Your task to perform on an android device: turn on sleep mode Image 0: 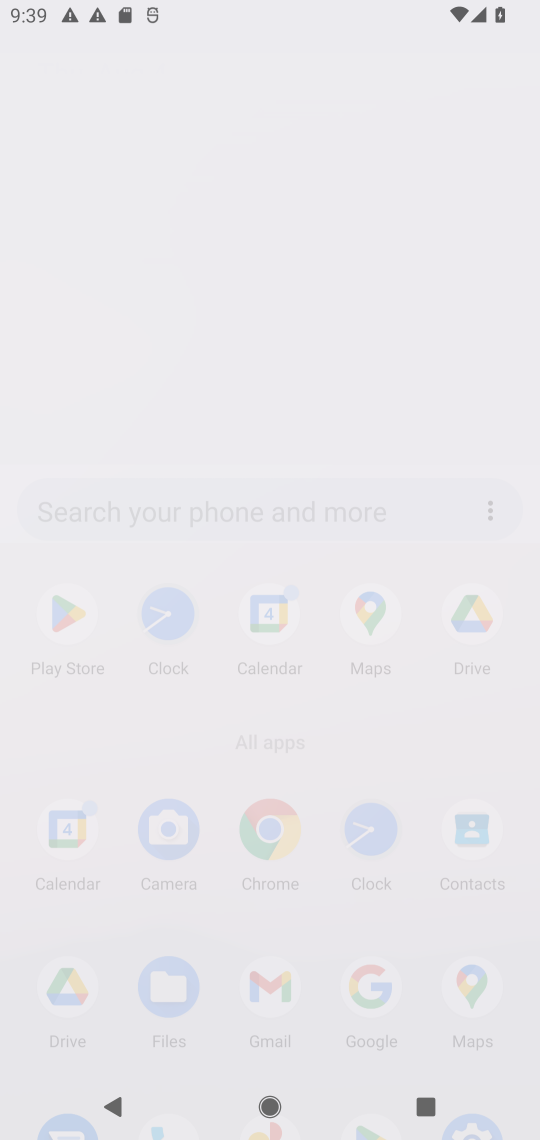
Step 0: press back button
Your task to perform on an android device: turn on sleep mode Image 1: 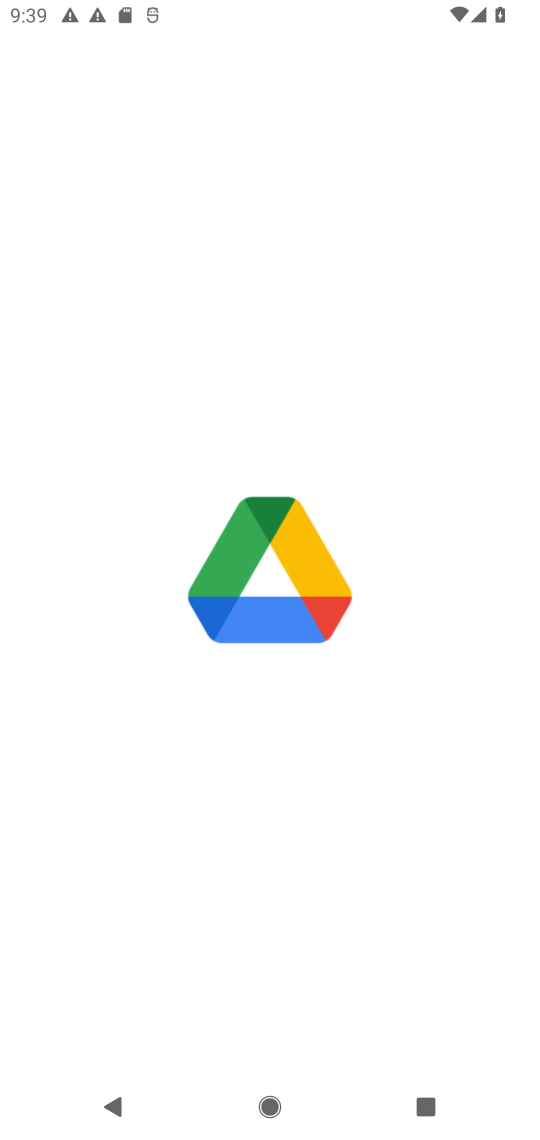
Step 1: press back button
Your task to perform on an android device: turn on sleep mode Image 2: 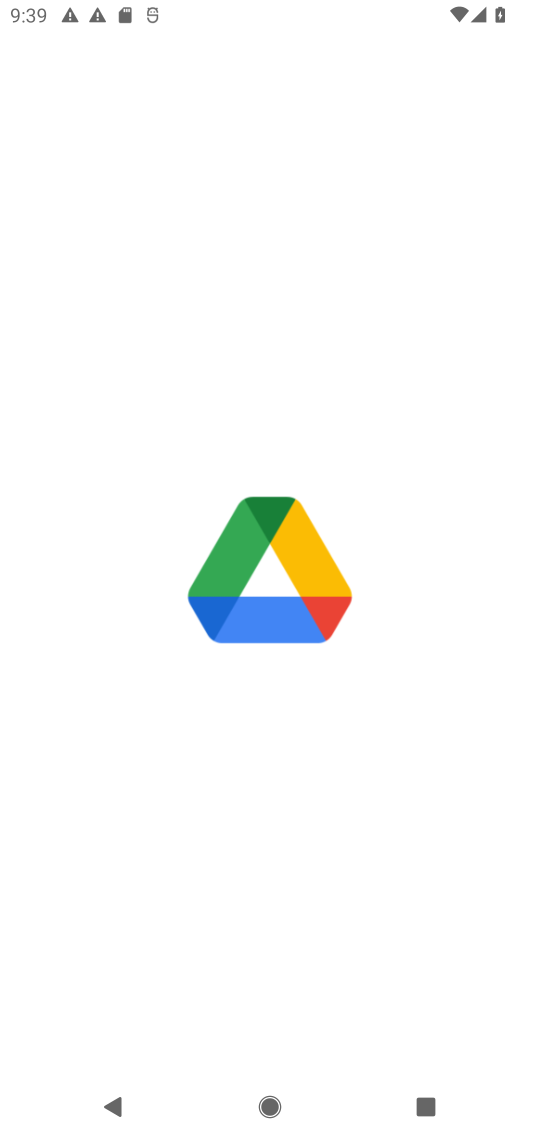
Step 2: press home button
Your task to perform on an android device: turn on sleep mode Image 3: 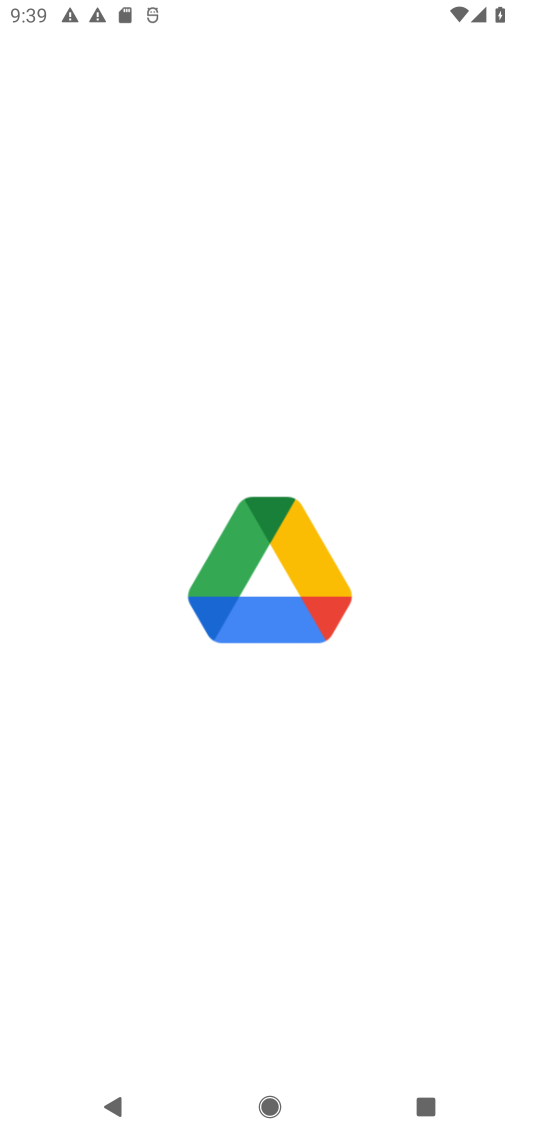
Step 3: press back button
Your task to perform on an android device: turn on sleep mode Image 4: 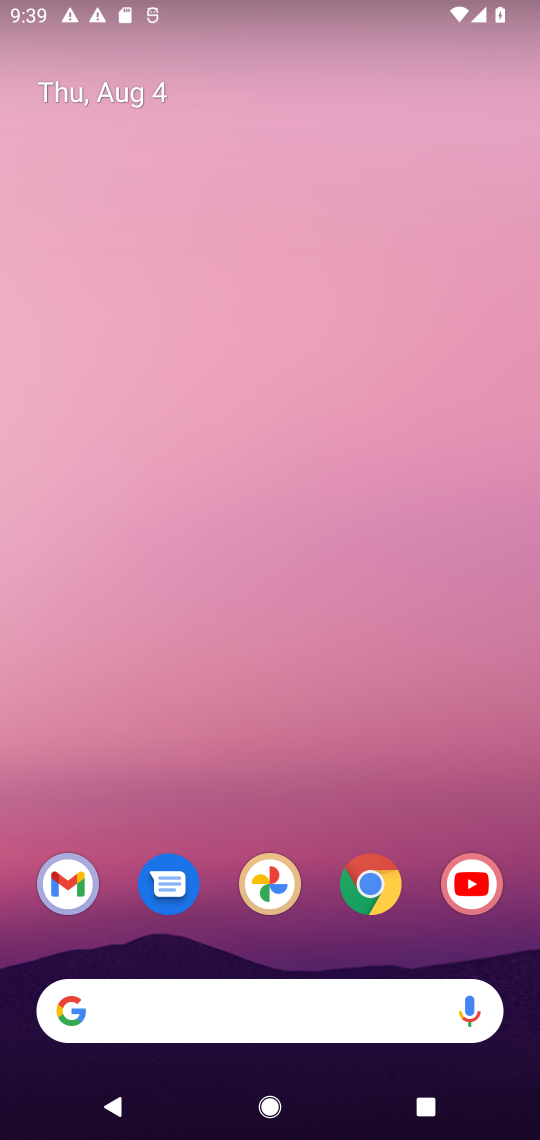
Step 4: press home button
Your task to perform on an android device: turn on sleep mode Image 5: 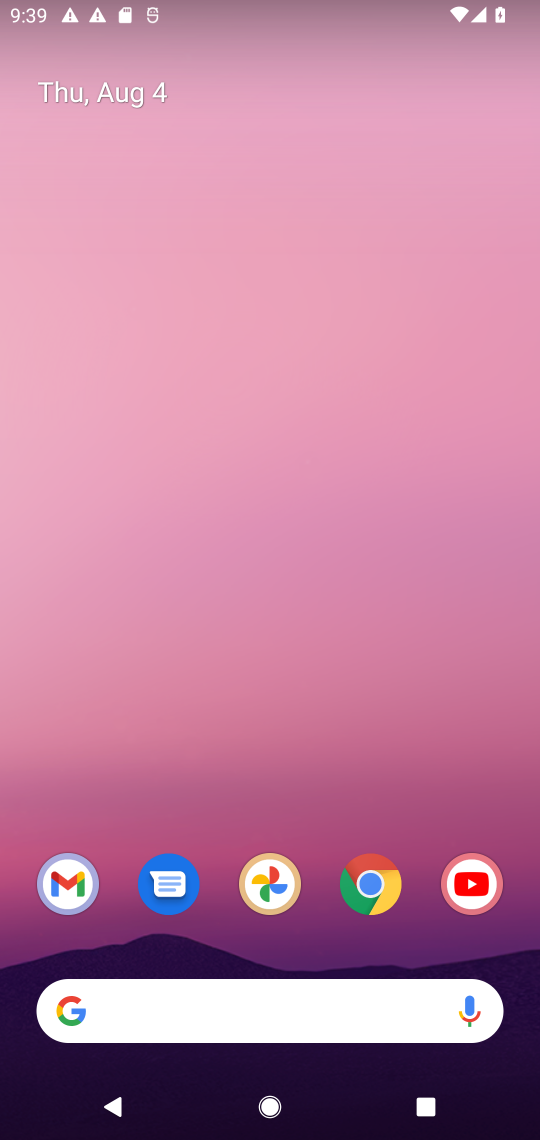
Step 5: click (181, 284)
Your task to perform on an android device: turn on sleep mode Image 6: 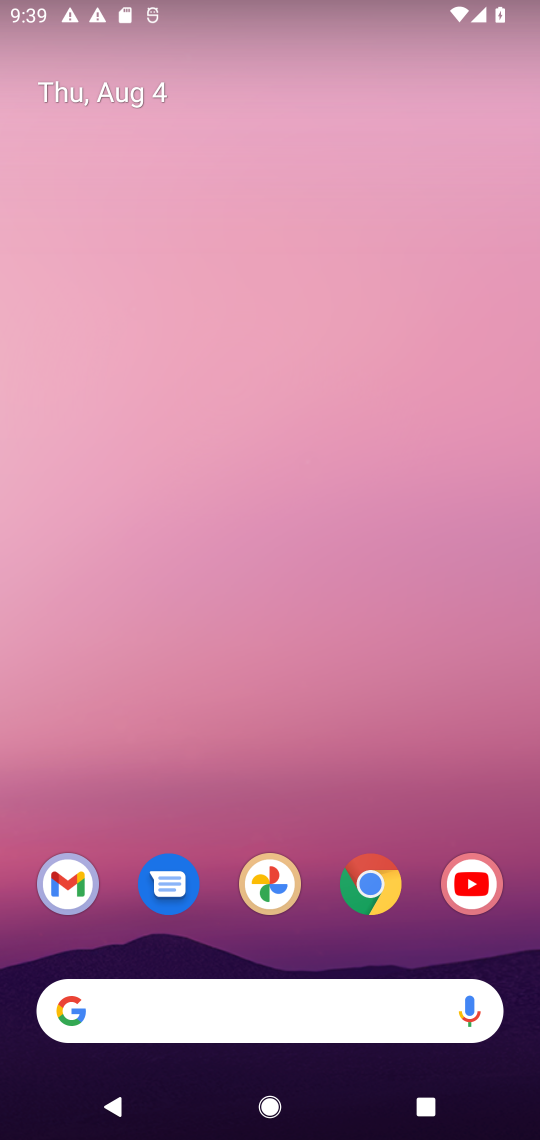
Step 6: task complete